Your task to perform on an android device: turn on location history Image 0: 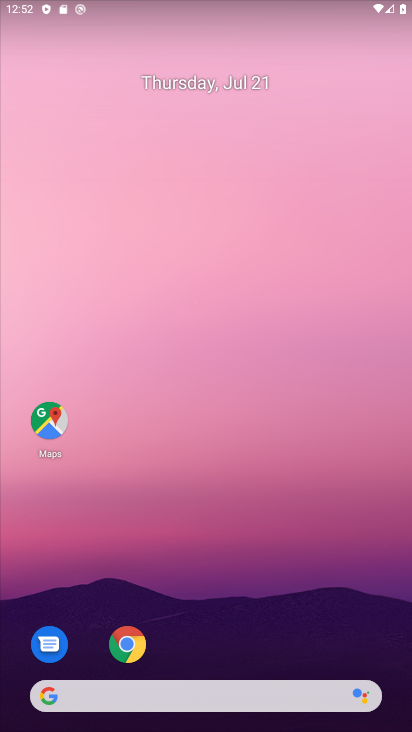
Step 0: drag from (230, 658) to (219, 81)
Your task to perform on an android device: turn on location history Image 1: 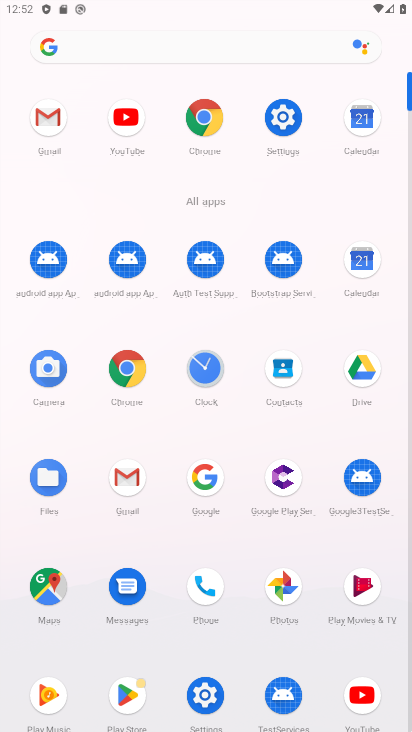
Step 1: click (281, 119)
Your task to perform on an android device: turn on location history Image 2: 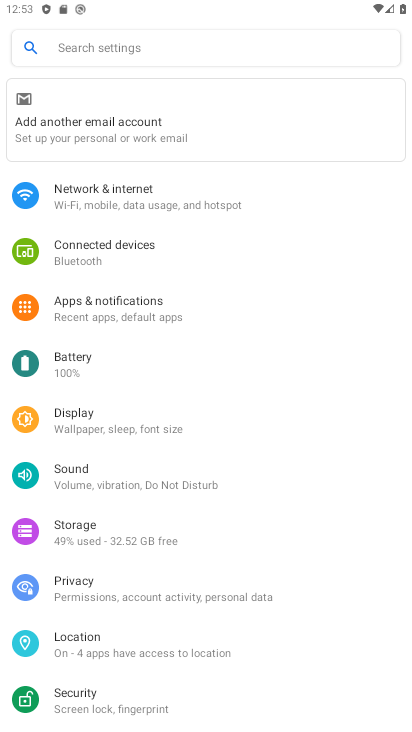
Step 2: click (81, 642)
Your task to perform on an android device: turn on location history Image 3: 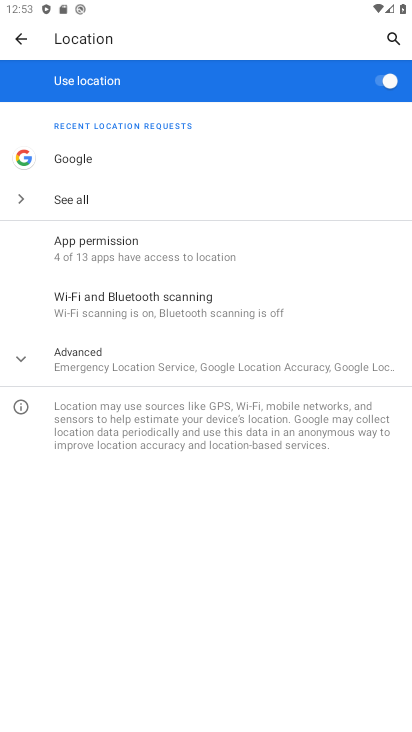
Step 3: click (98, 366)
Your task to perform on an android device: turn on location history Image 4: 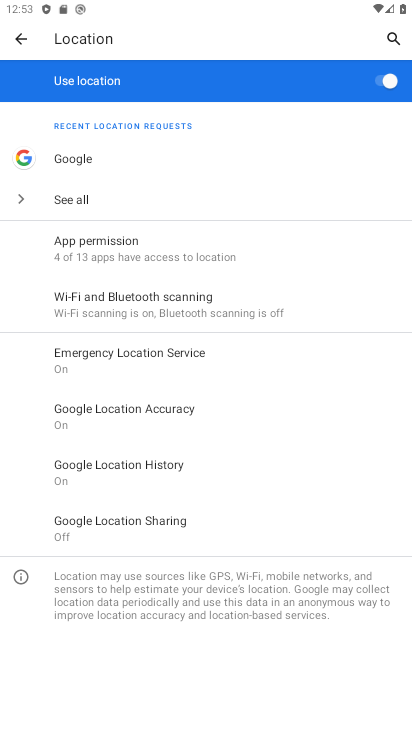
Step 4: click (148, 462)
Your task to perform on an android device: turn on location history Image 5: 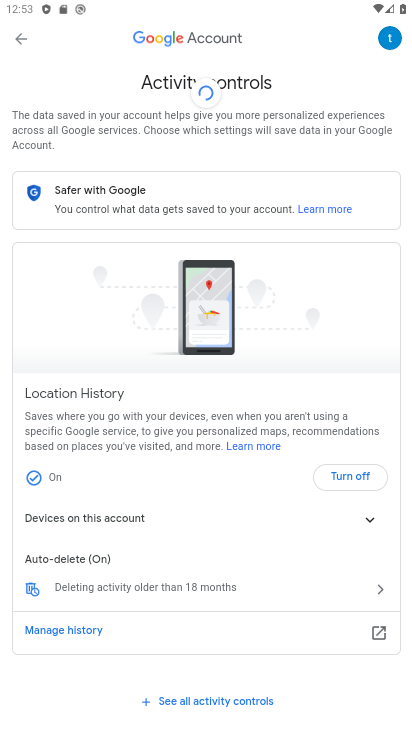
Step 5: task complete